Your task to perform on an android device: open chrome and create a bookmark for the current page Image 0: 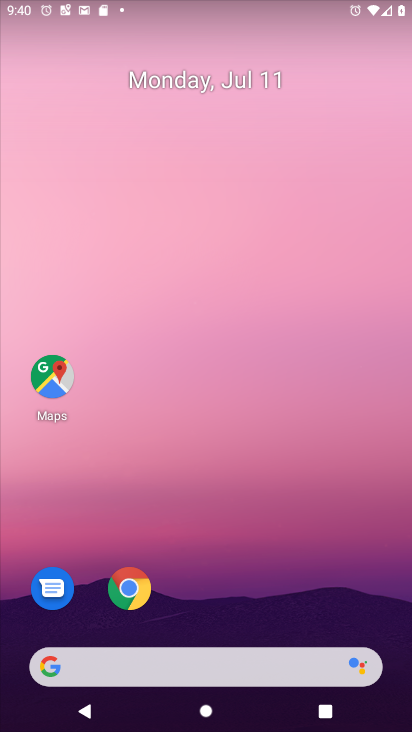
Step 0: click (130, 602)
Your task to perform on an android device: open chrome and create a bookmark for the current page Image 1: 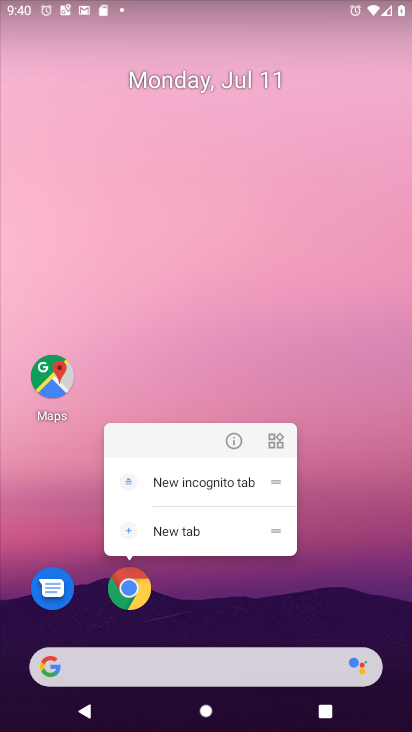
Step 1: click (136, 594)
Your task to perform on an android device: open chrome and create a bookmark for the current page Image 2: 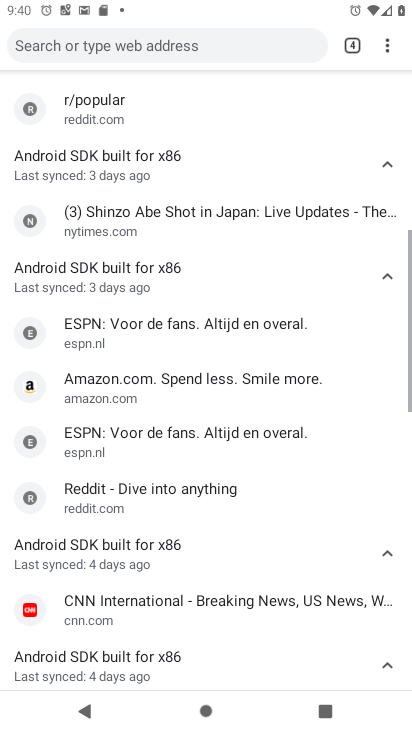
Step 2: click (388, 56)
Your task to perform on an android device: open chrome and create a bookmark for the current page Image 3: 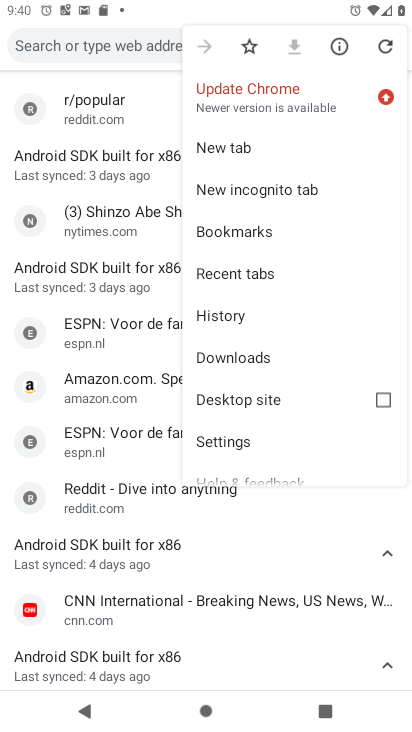
Step 3: click (249, 48)
Your task to perform on an android device: open chrome and create a bookmark for the current page Image 4: 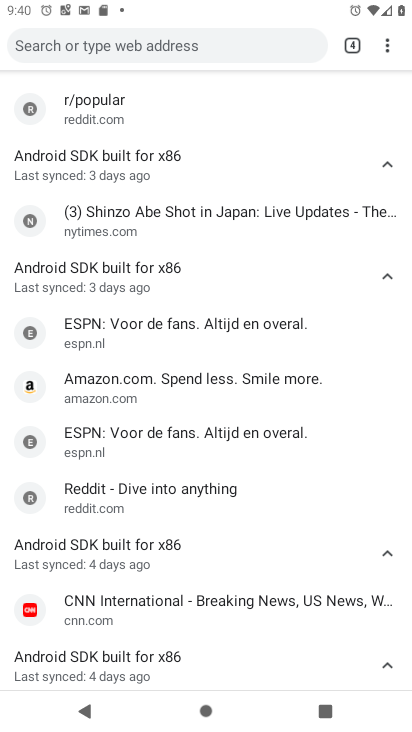
Step 4: task complete